Your task to perform on an android device: open app "Fetch Rewards" Image 0: 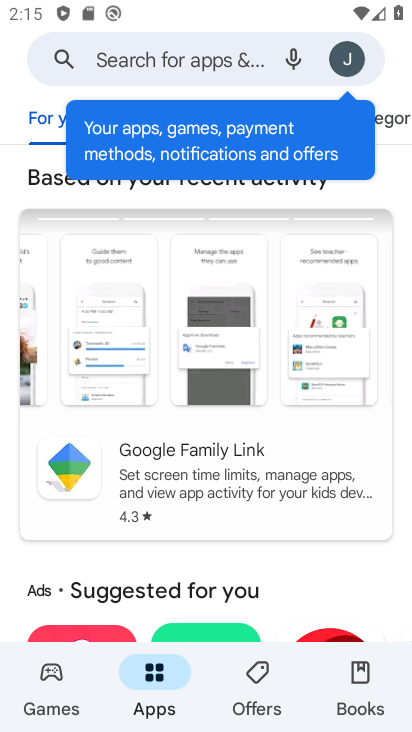
Step 0: press back button
Your task to perform on an android device: open app "Fetch Rewards" Image 1: 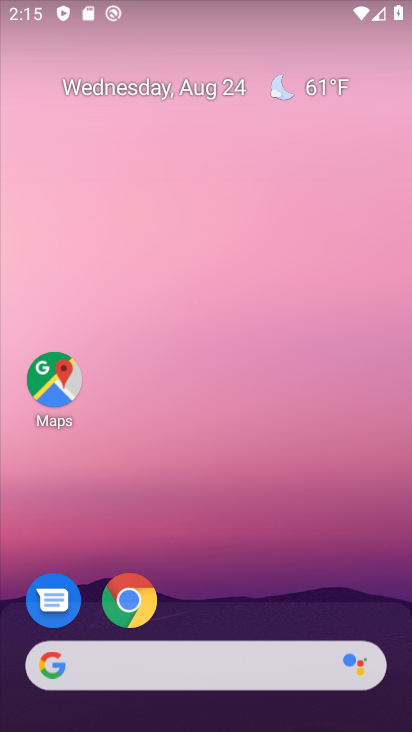
Step 1: drag from (229, 588) to (261, 30)
Your task to perform on an android device: open app "Fetch Rewards" Image 2: 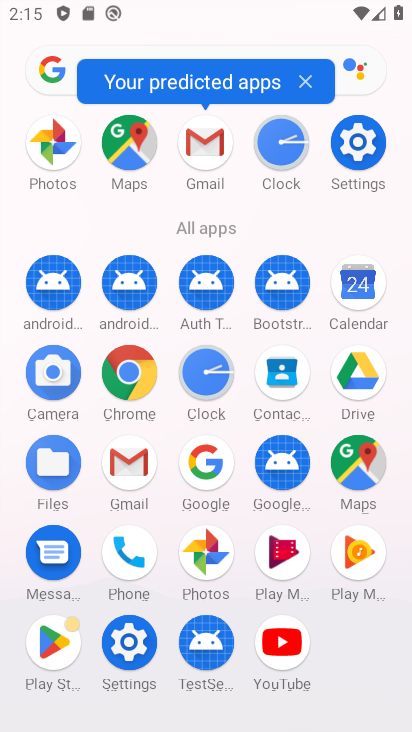
Step 2: click (57, 650)
Your task to perform on an android device: open app "Fetch Rewards" Image 3: 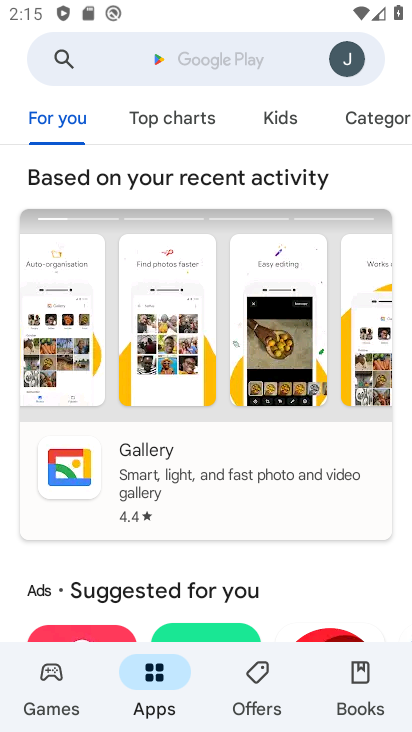
Step 3: click (212, 60)
Your task to perform on an android device: open app "Fetch Rewards" Image 4: 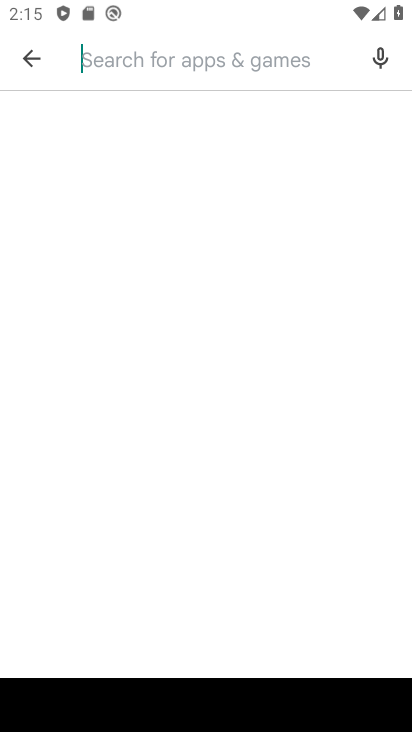
Step 4: type "fetch reward"
Your task to perform on an android device: open app "Fetch Rewards" Image 5: 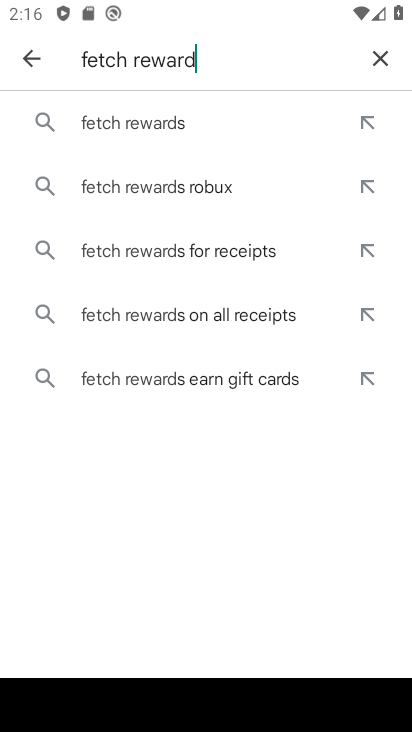
Step 5: click (143, 125)
Your task to perform on an android device: open app "Fetch Rewards" Image 6: 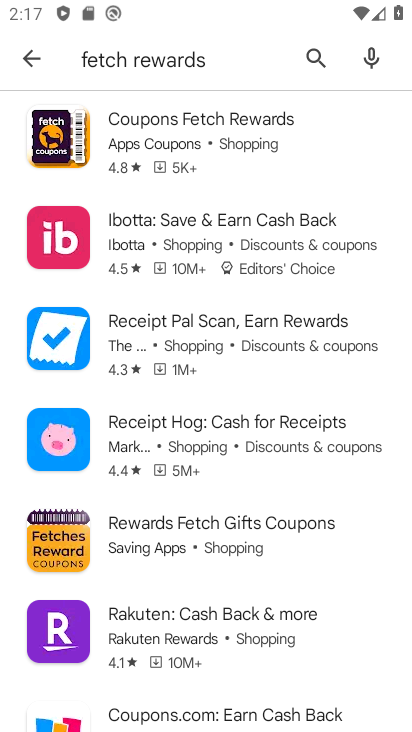
Step 6: task complete